Your task to perform on an android device: add a label to a message in the gmail app Image 0: 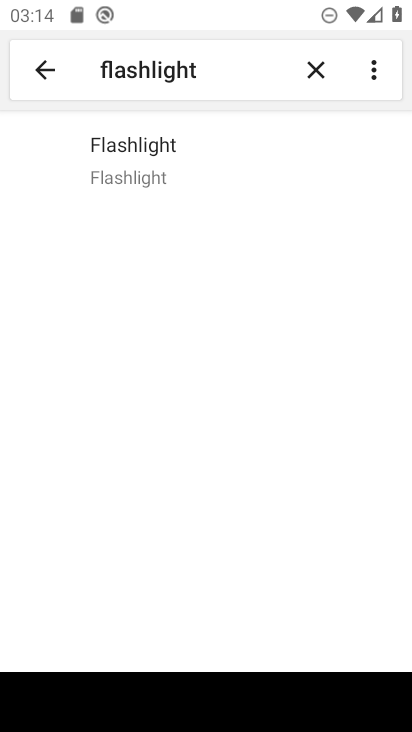
Step 0: click (185, 152)
Your task to perform on an android device: add a label to a message in the gmail app Image 1: 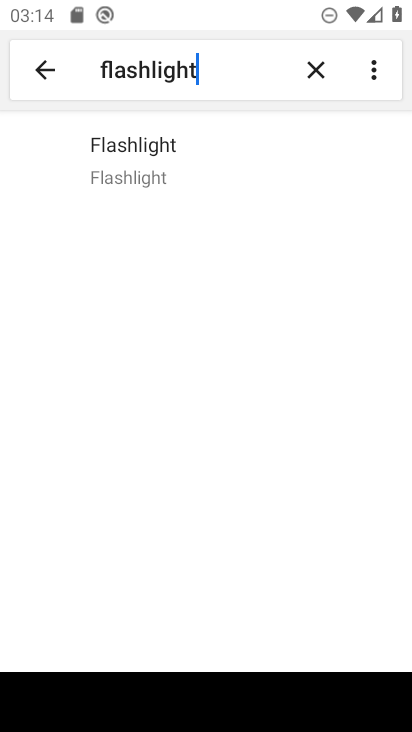
Step 1: task complete